Your task to perform on an android device: What's the weather? Image 0: 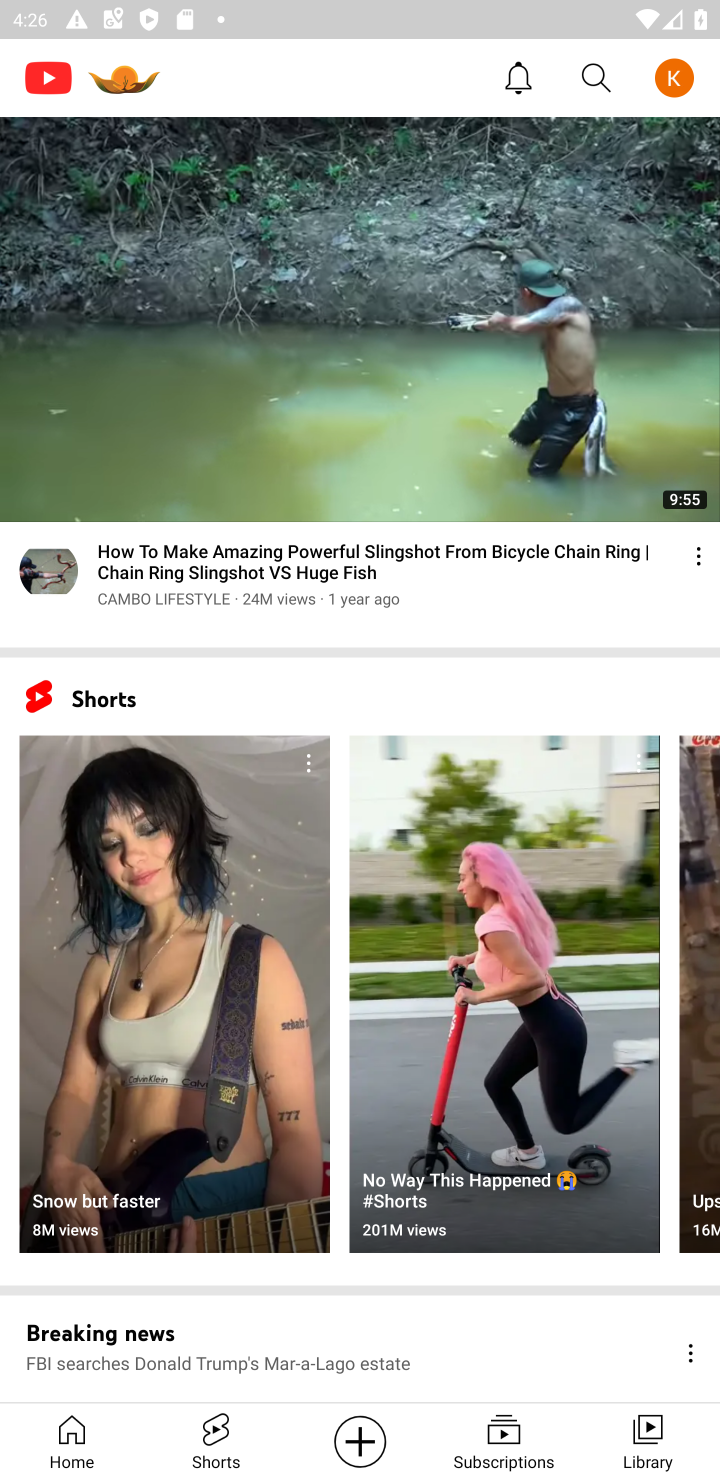
Step 0: press home button
Your task to perform on an android device: What's the weather? Image 1: 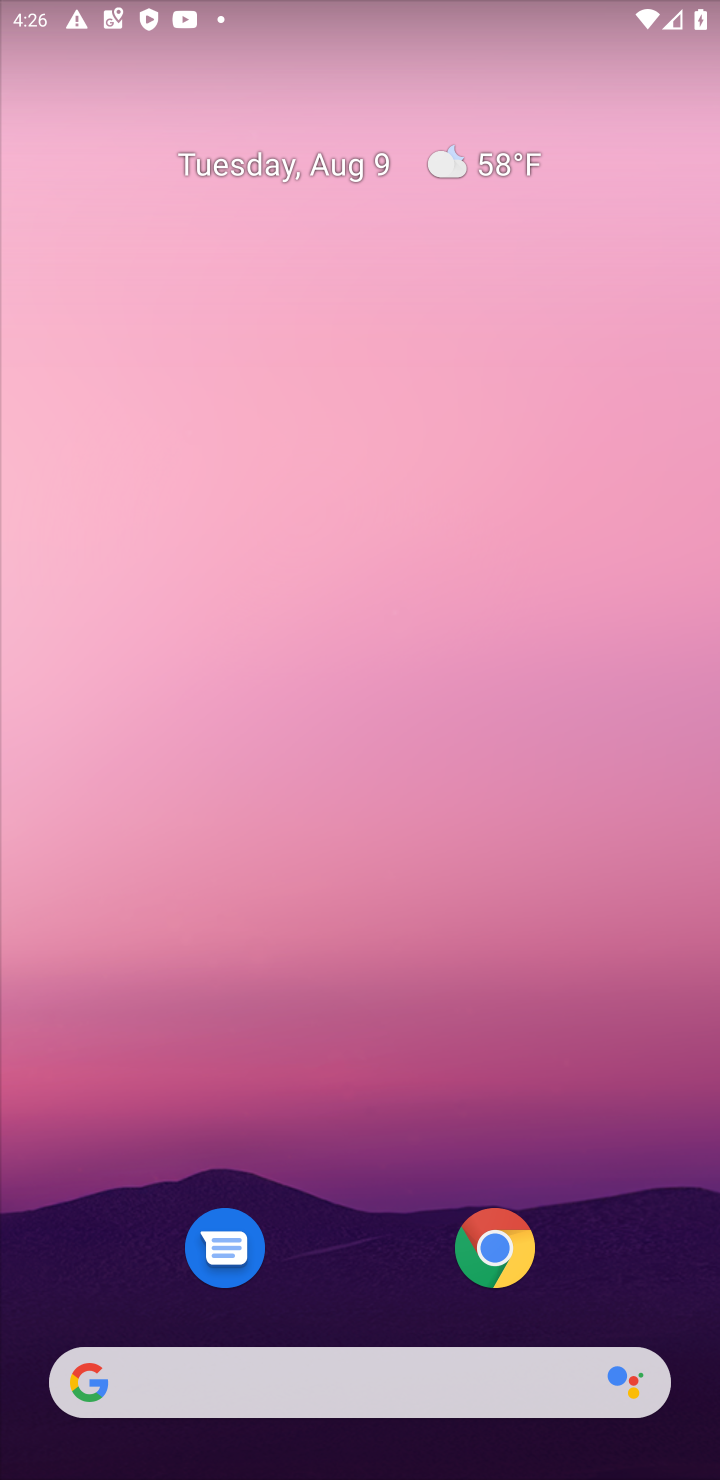
Step 1: click (496, 172)
Your task to perform on an android device: What's the weather? Image 2: 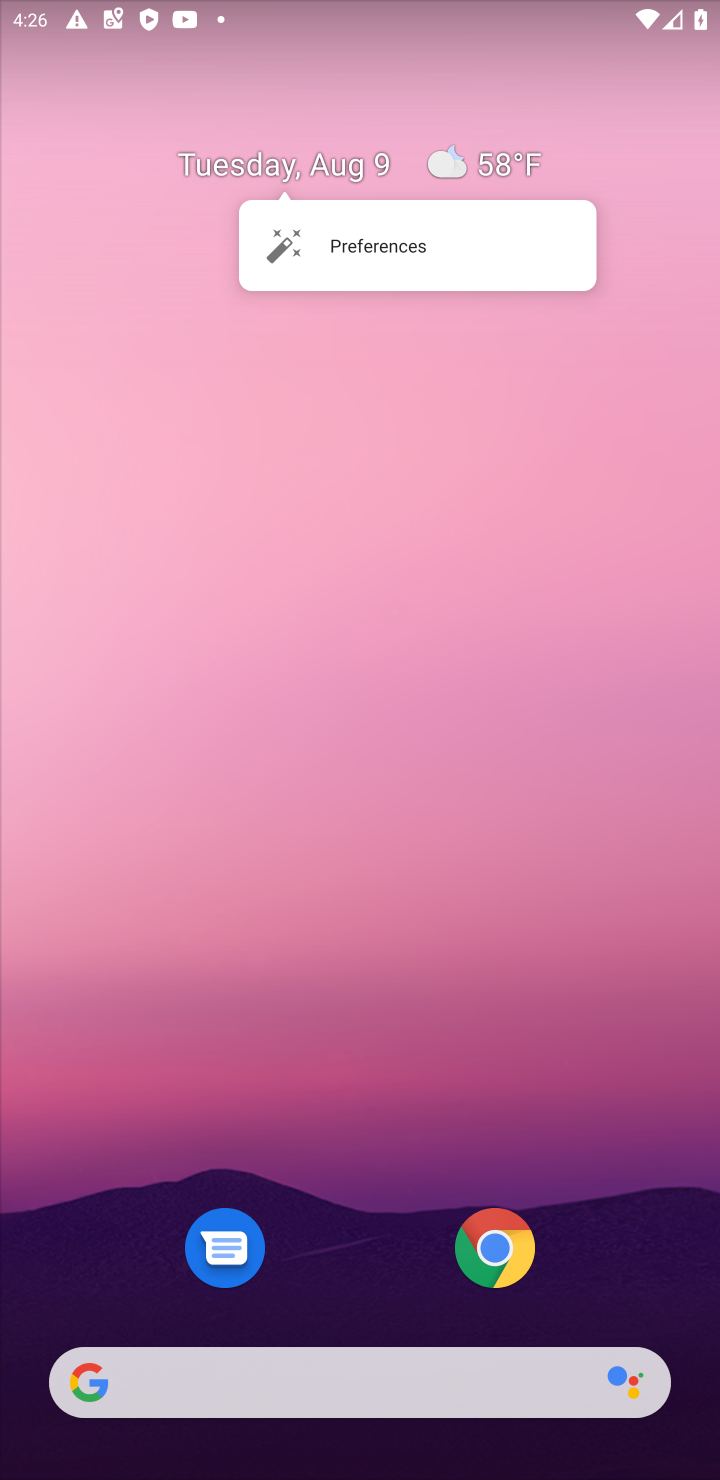
Step 2: click (496, 172)
Your task to perform on an android device: What's the weather? Image 3: 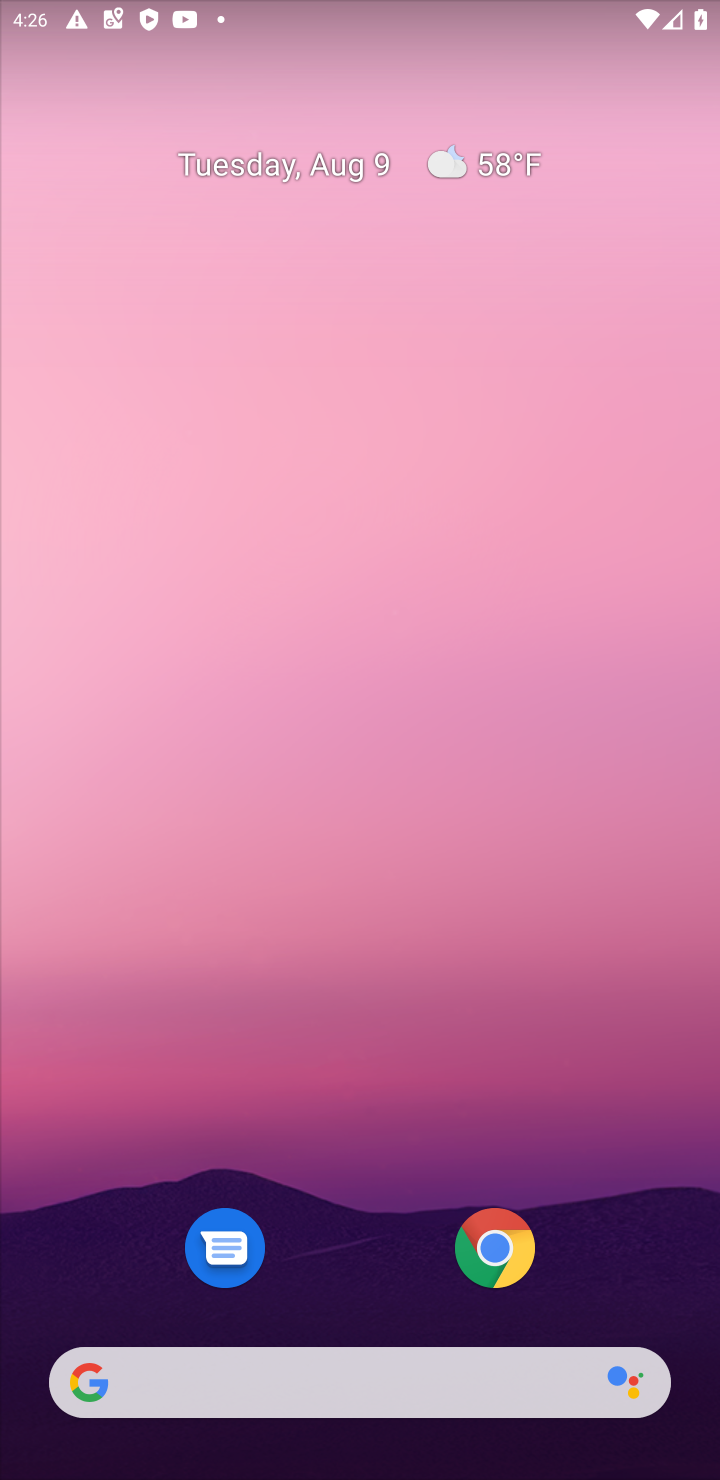
Step 3: click (494, 170)
Your task to perform on an android device: What's the weather? Image 4: 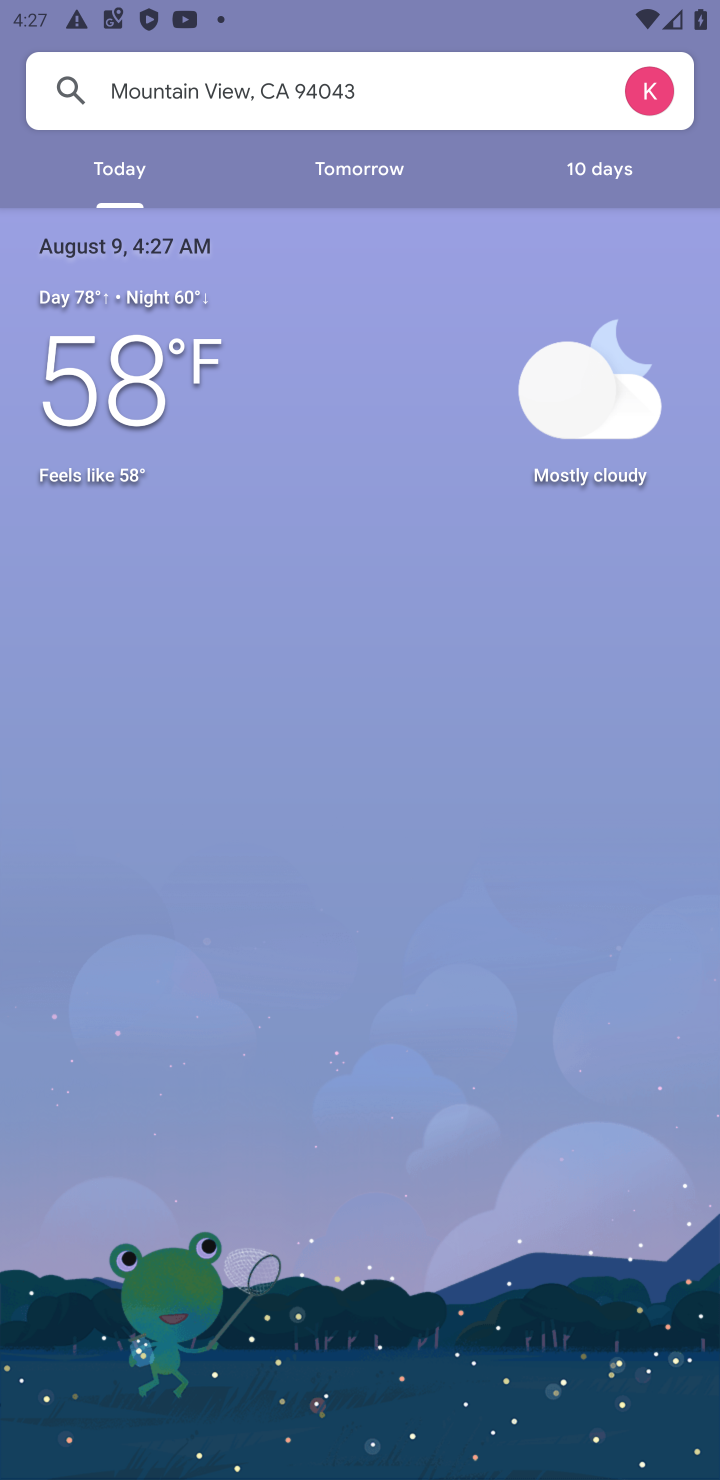
Step 4: task complete